Your task to perform on an android device: change timer sound Image 0: 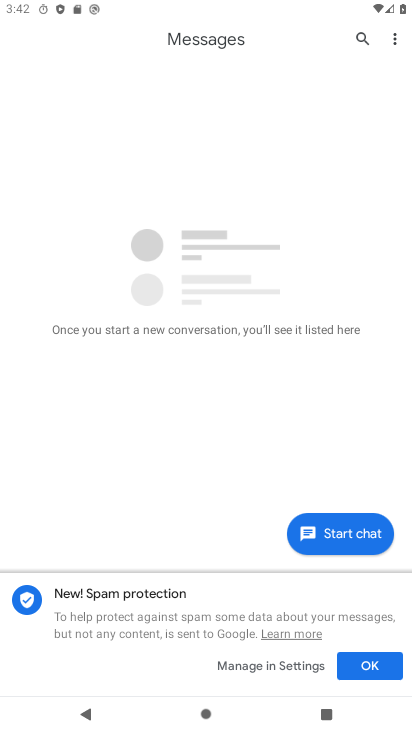
Step 0: press home button
Your task to perform on an android device: change timer sound Image 1: 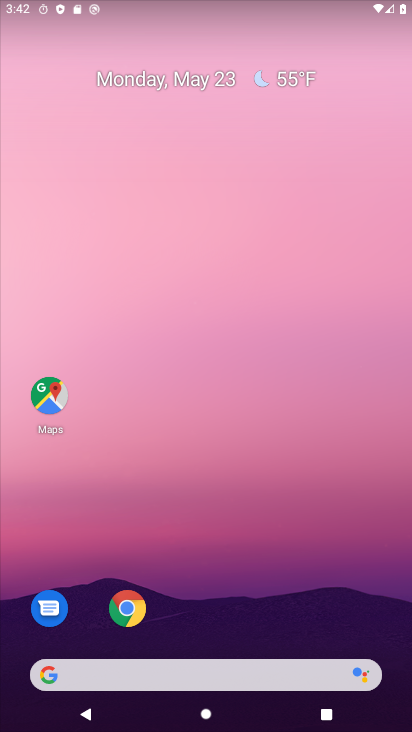
Step 1: drag from (62, 509) to (228, 22)
Your task to perform on an android device: change timer sound Image 2: 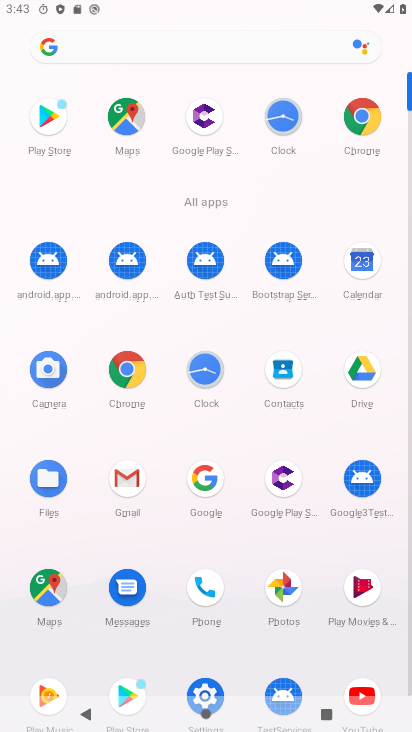
Step 2: click (335, 237)
Your task to perform on an android device: change timer sound Image 3: 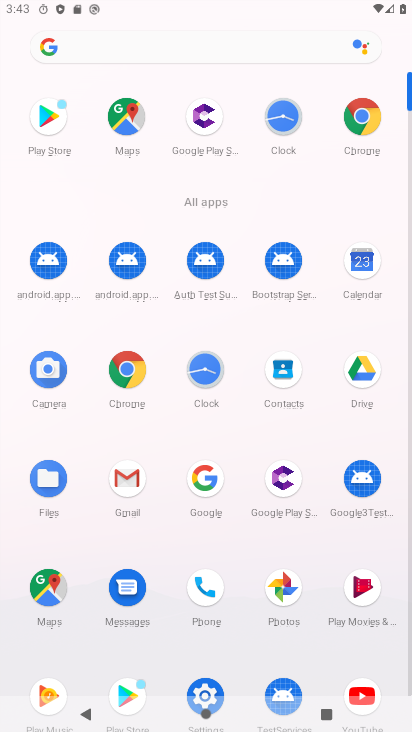
Step 3: click (195, 685)
Your task to perform on an android device: change timer sound Image 4: 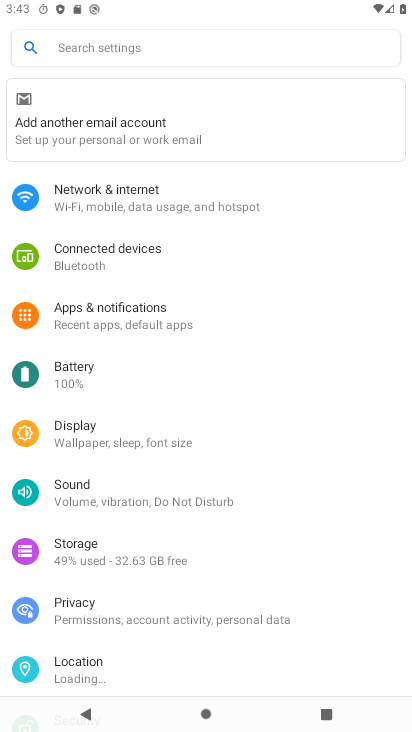
Step 4: press home button
Your task to perform on an android device: change timer sound Image 5: 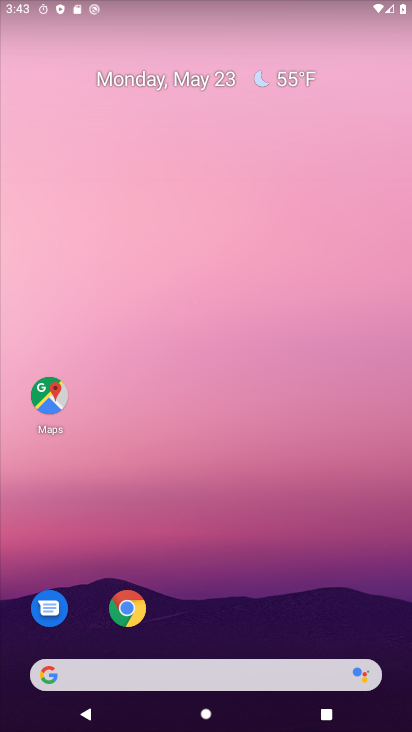
Step 5: drag from (157, 318) to (261, 135)
Your task to perform on an android device: change timer sound Image 6: 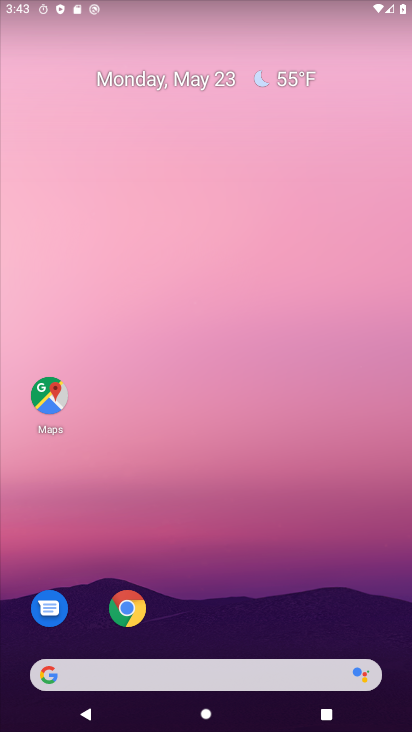
Step 6: drag from (64, 474) to (174, 251)
Your task to perform on an android device: change timer sound Image 7: 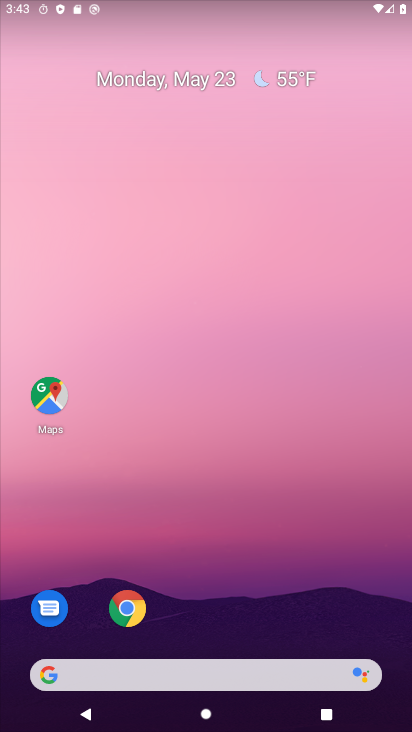
Step 7: drag from (26, 650) to (257, 176)
Your task to perform on an android device: change timer sound Image 8: 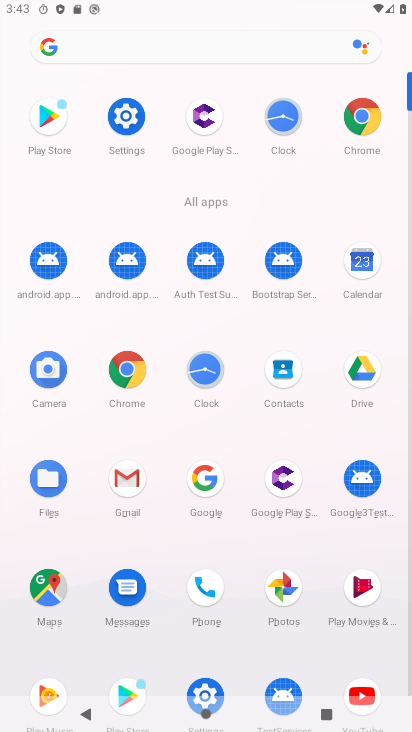
Step 8: click (271, 122)
Your task to perform on an android device: change timer sound Image 9: 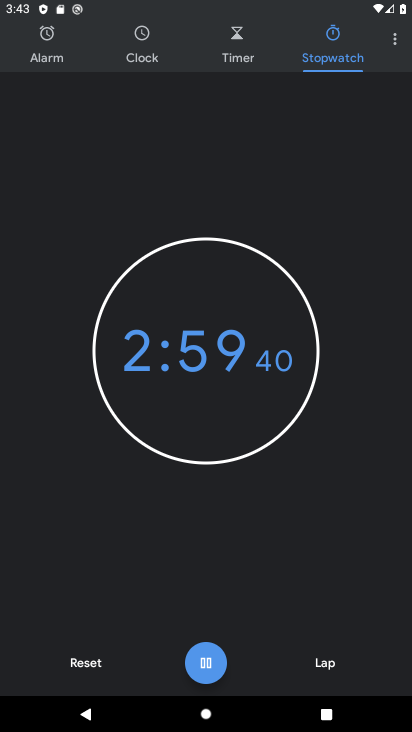
Step 9: click (391, 43)
Your task to perform on an android device: change timer sound Image 10: 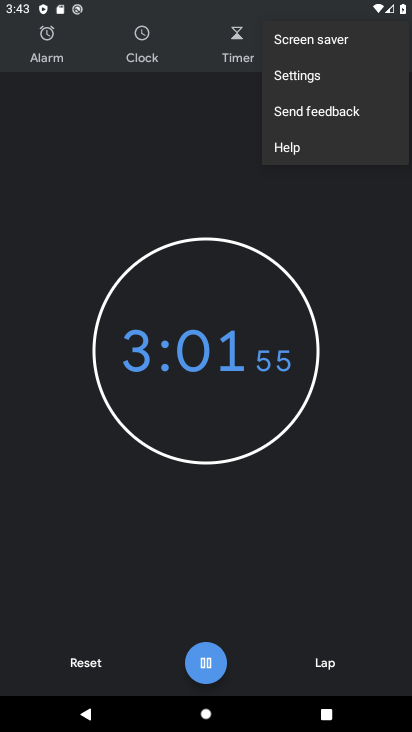
Step 10: click (342, 86)
Your task to perform on an android device: change timer sound Image 11: 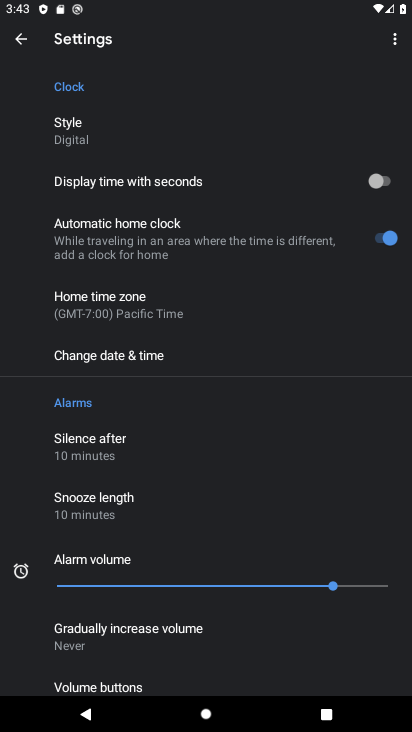
Step 11: click (115, 356)
Your task to perform on an android device: change timer sound Image 12: 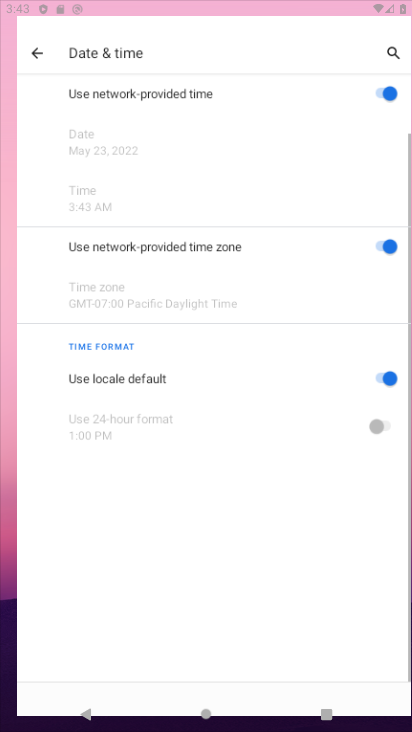
Step 12: task complete